Your task to perform on an android device: set default search engine in the chrome app Image 0: 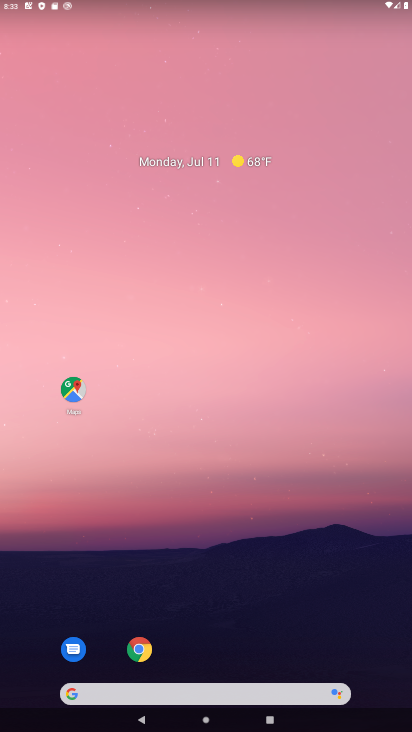
Step 0: drag from (247, 643) to (236, 357)
Your task to perform on an android device: set default search engine in the chrome app Image 1: 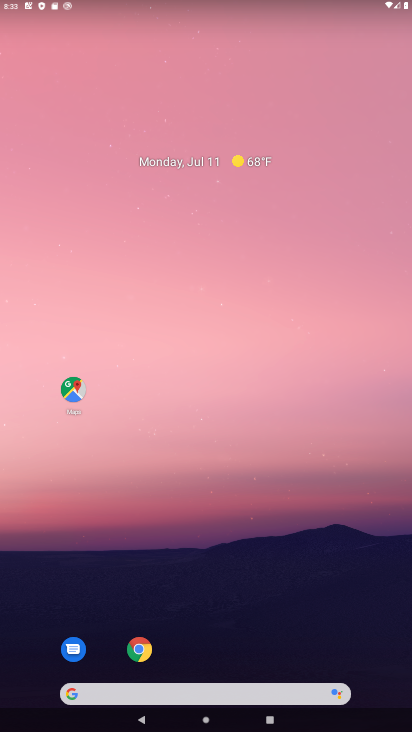
Step 1: drag from (313, 710) to (239, 171)
Your task to perform on an android device: set default search engine in the chrome app Image 2: 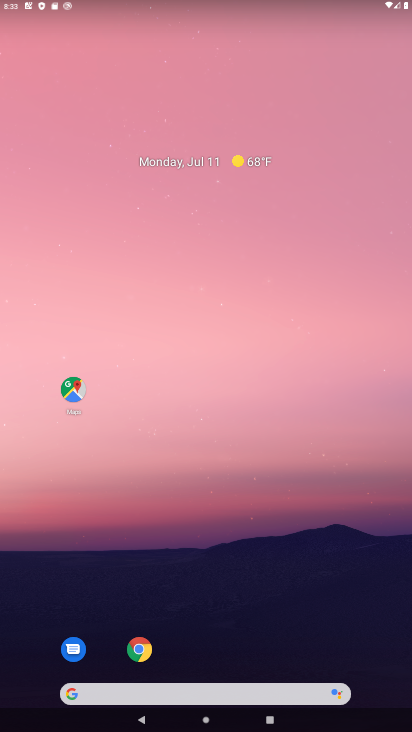
Step 2: drag from (272, 623) to (124, 19)
Your task to perform on an android device: set default search engine in the chrome app Image 3: 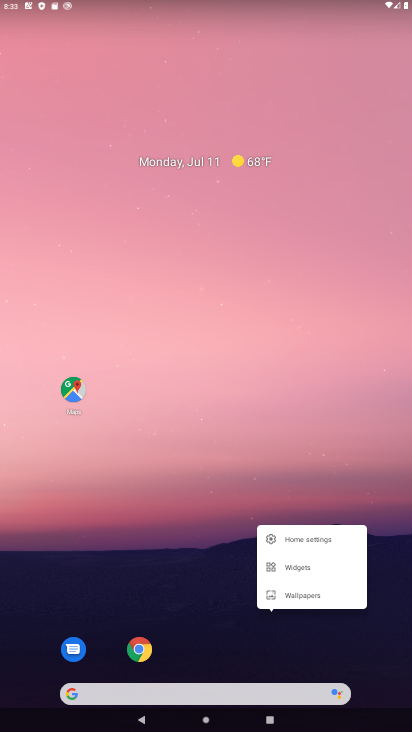
Step 3: drag from (299, 475) to (209, 53)
Your task to perform on an android device: set default search engine in the chrome app Image 4: 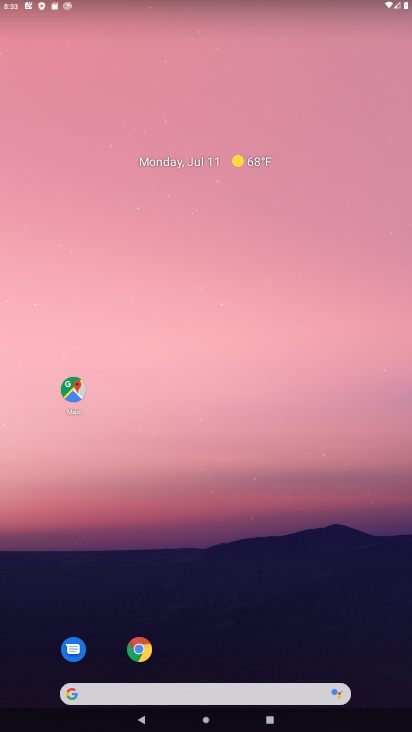
Step 4: drag from (233, 593) to (186, 255)
Your task to perform on an android device: set default search engine in the chrome app Image 5: 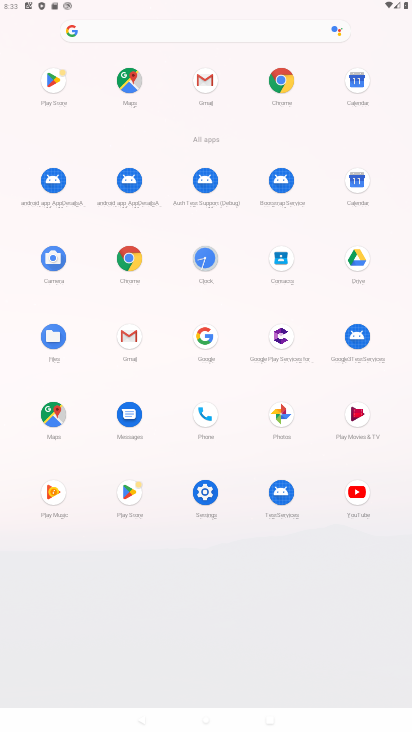
Step 5: click (126, 237)
Your task to perform on an android device: set default search engine in the chrome app Image 6: 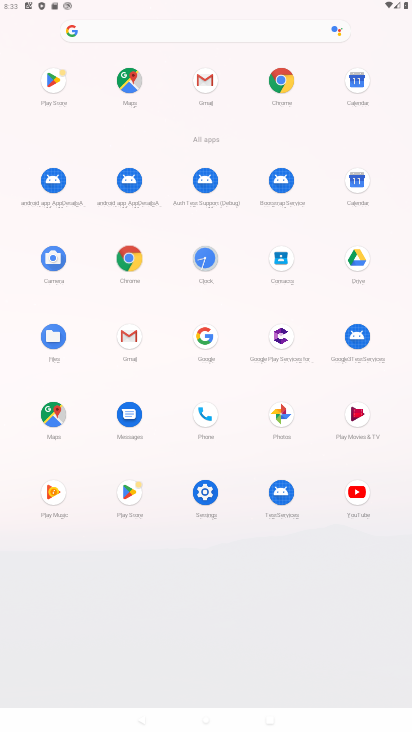
Step 6: click (130, 257)
Your task to perform on an android device: set default search engine in the chrome app Image 7: 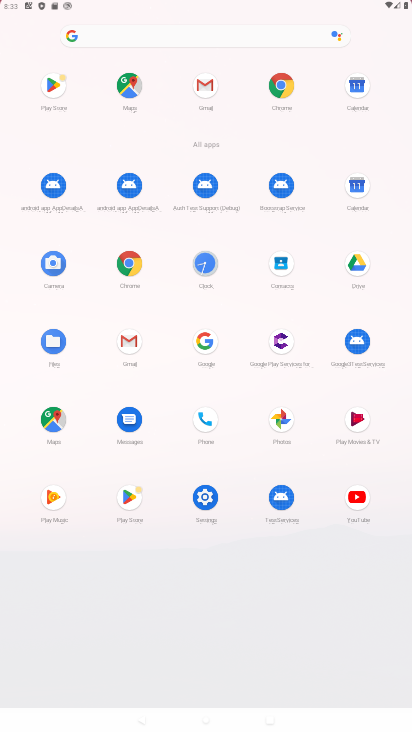
Step 7: click (134, 257)
Your task to perform on an android device: set default search engine in the chrome app Image 8: 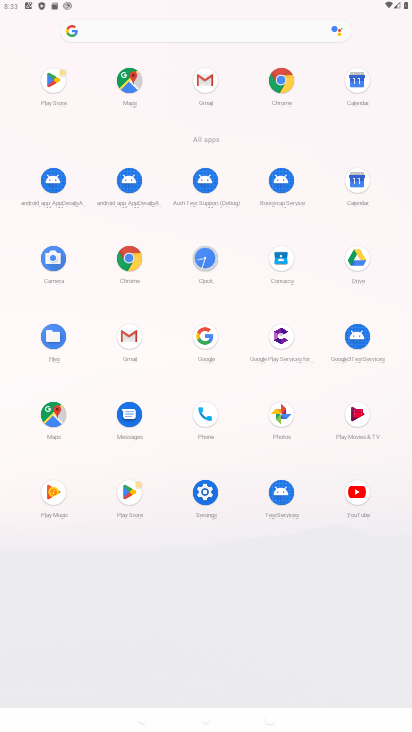
Step 8: click (133, 246)
Your task to perform on an android device: set default search engine in the chrome app Image 9: 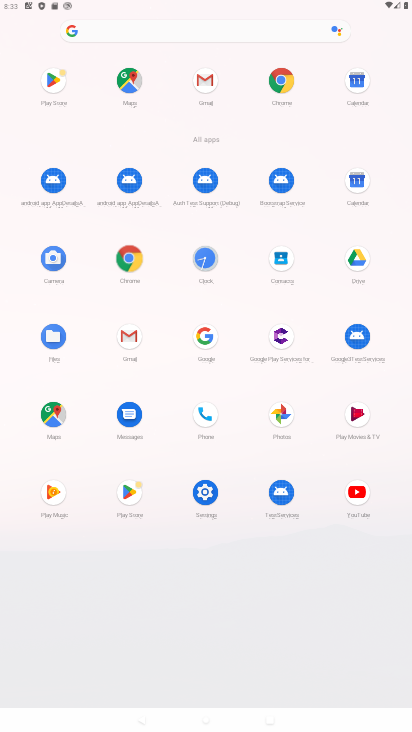
Step 9: click (133, 246)
Your task to perform on an android device: set default search engine in the chrome app Image 10: 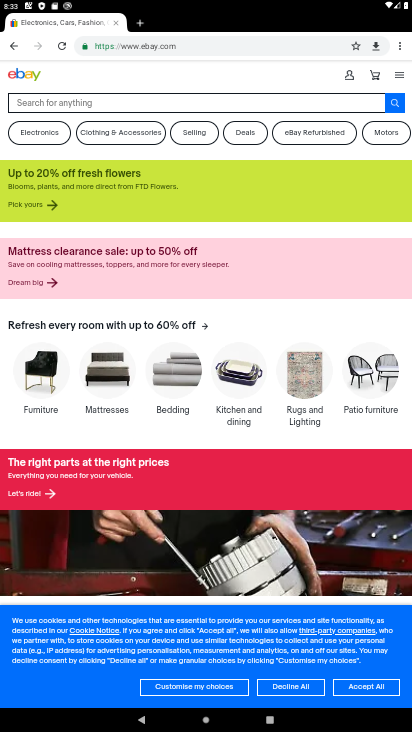
Step 10: drag from (399, 41) to (304, 314)
Your task to perform on an android device: set default search engine in the chrome app Image 11: 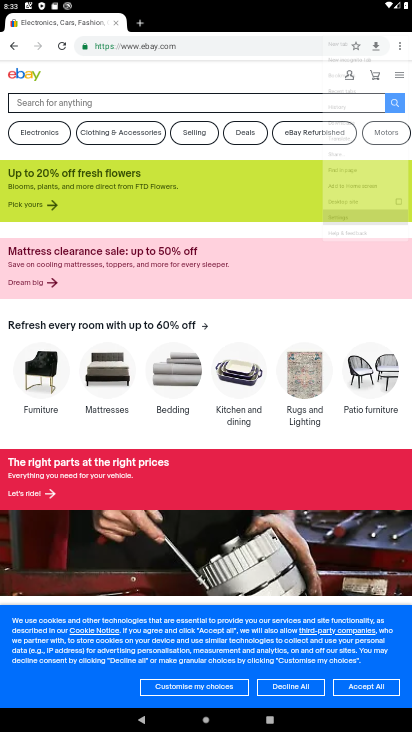
Step 11: click (303, 314)
Your task to perform on an android device: set default search engine in the chrome app Image 12: 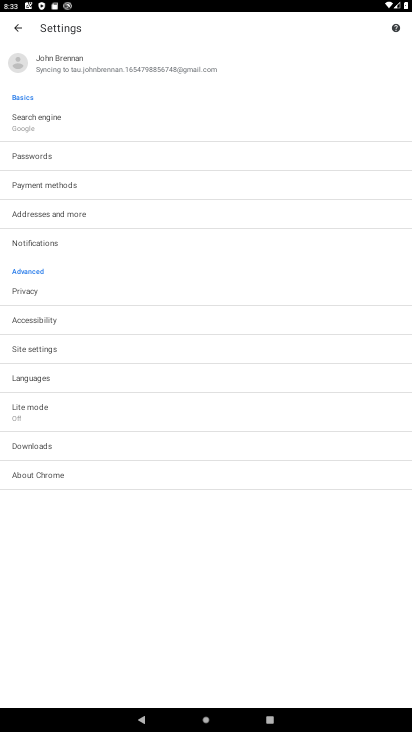
Step 12: click (26, 128)
Your task to perform on an android device: set default search engine in the chrome app Image 13: 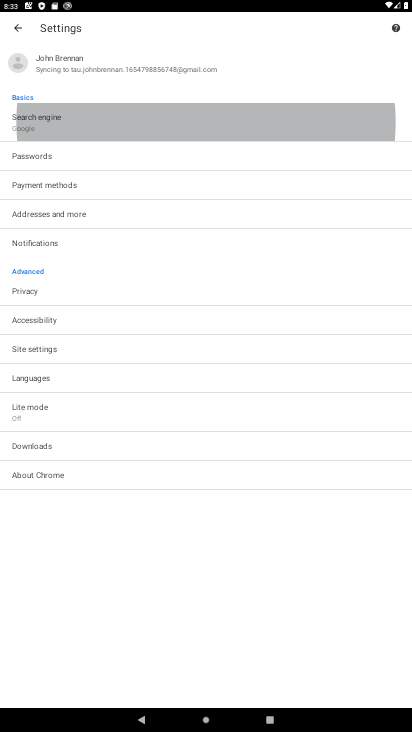
Step 13: click (27, 129)
Your task to perform on an android device: set default search engine in the chrome app Image 14: 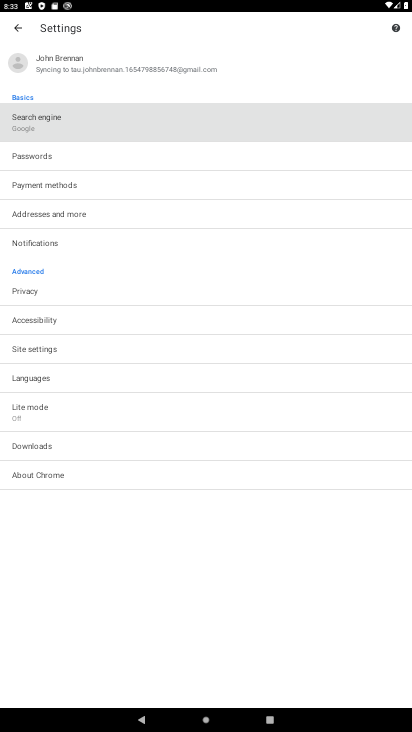
Step 14: click (28, 129)
Your task to perform on an android device: set default search engine in the chrome app Image 15: 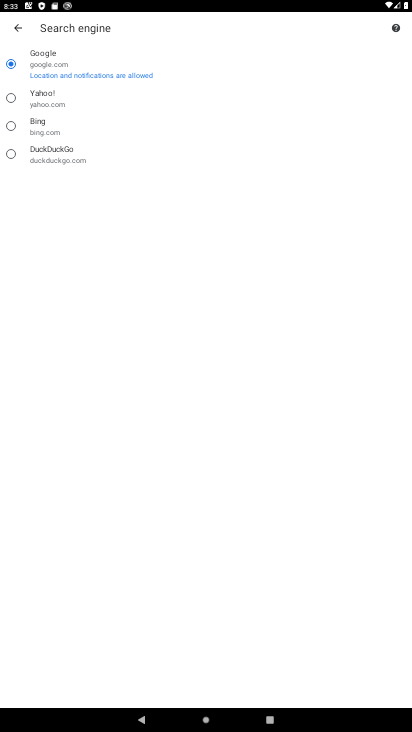
Step 15: click (10, 93)
Your task to perform on an android device: set default search engine in the chrome app Image 16: 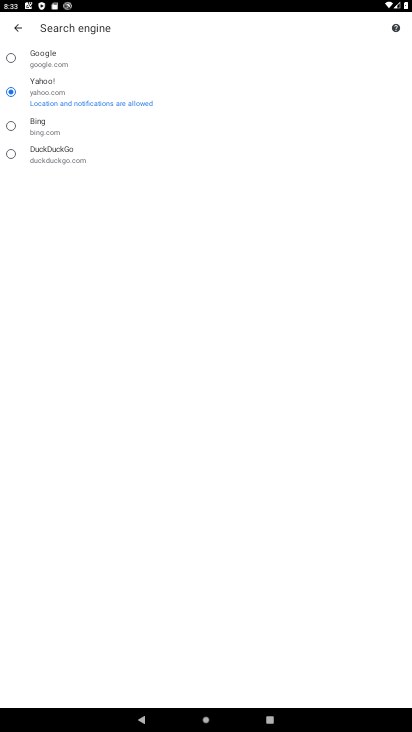
Step 16: task complete